Your task to perform on an android device: toggle location history Image 0: 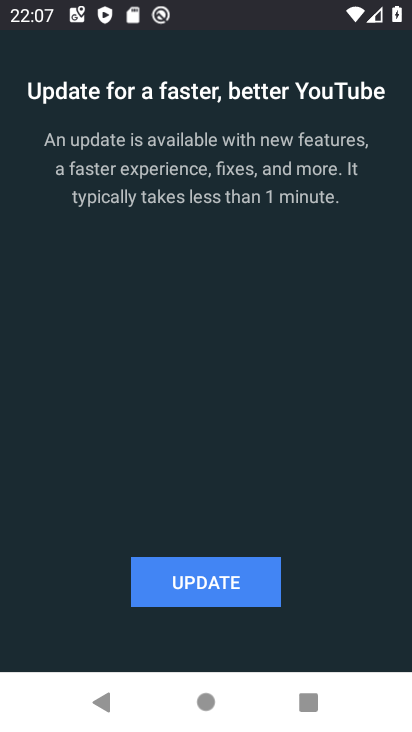
Step 0: press home button
Your task to perform on an android device: toggle location history Image 1: 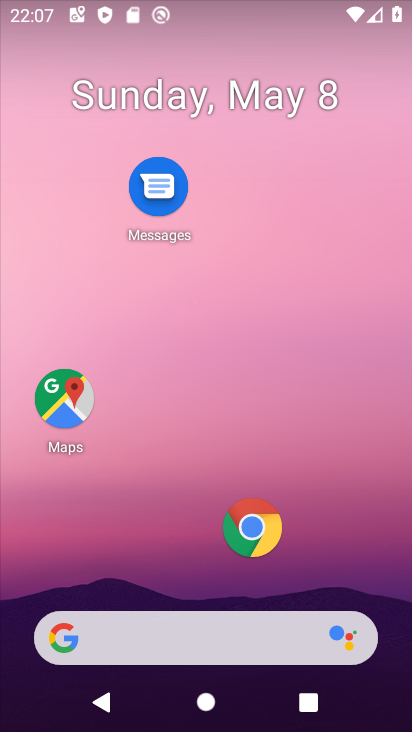
Step 1: drag from (167, 537) to (224, 4)
Your task to perform on an android device: toggle location history Image 2: 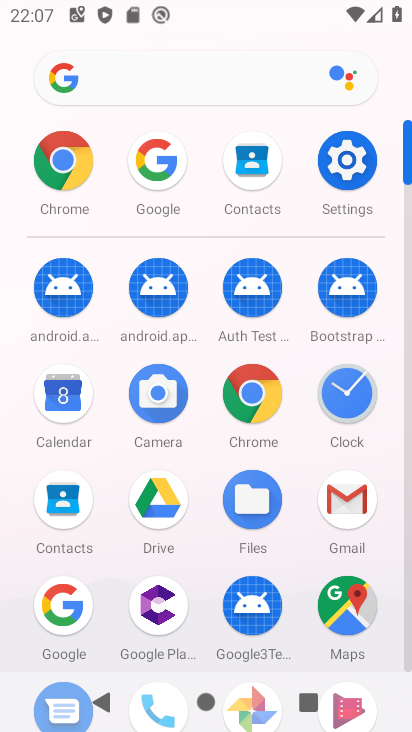
Step 2: click (349, 155)
Your task to perform on an android device: toggle location history Image 3: 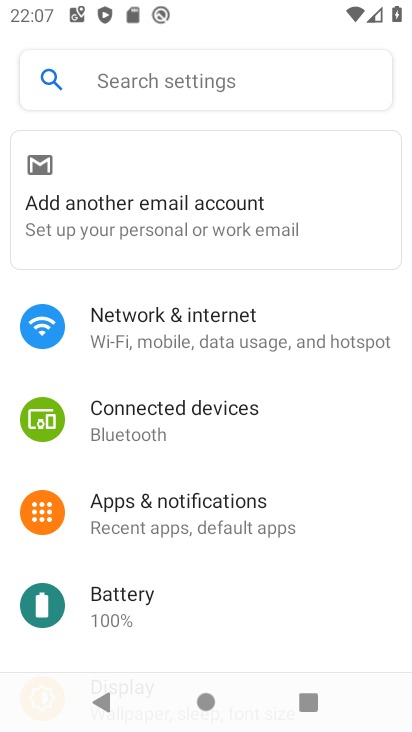
Step 3: drag from (255, 583) to (320, 49)
Your task to perform on an android device: toggle location history Image 4: 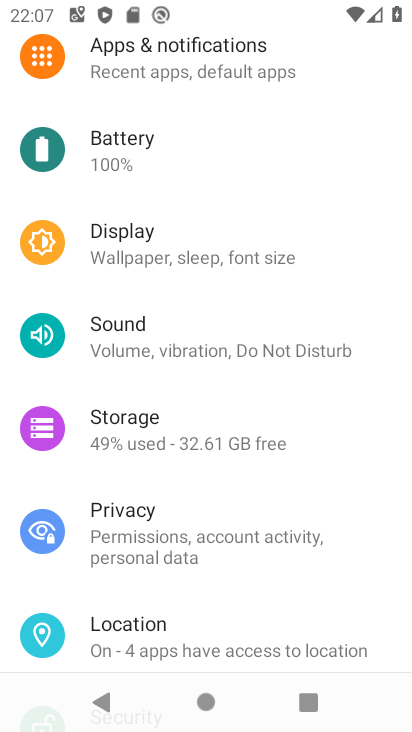
Step 4: click (131, 634)
Your task to perform on an android device: toggle location history Image 5: 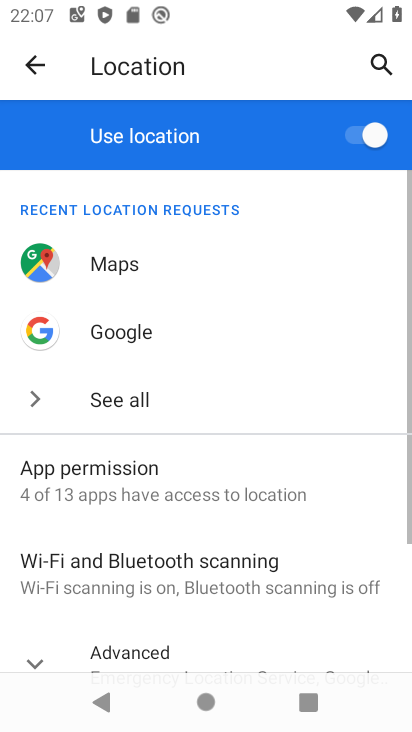
Step 5: drag from (298, 101) to (250, 30)
Your task to perform on an android device: toggle location history Image 6: 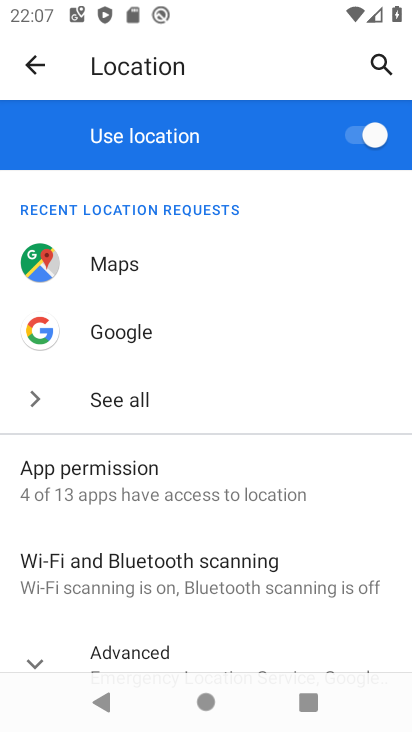
Step 6: drag from (180, 587) to (205, 256)
Your task to perform on an android device: toggle location history Image 7: 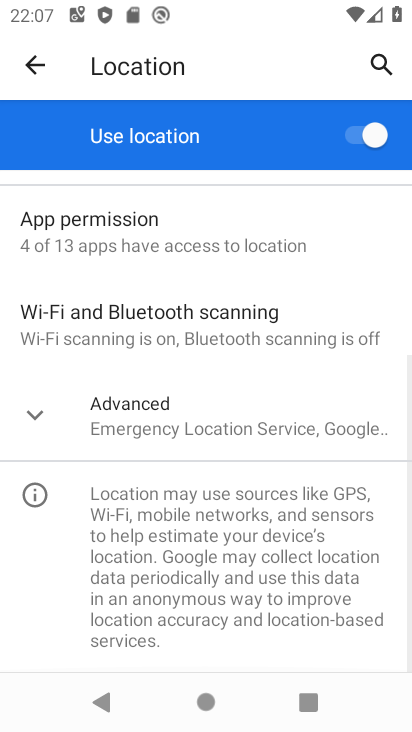
Step 7: click (108, 420)
Your task to perform on an android device: toggle location history Image 8: 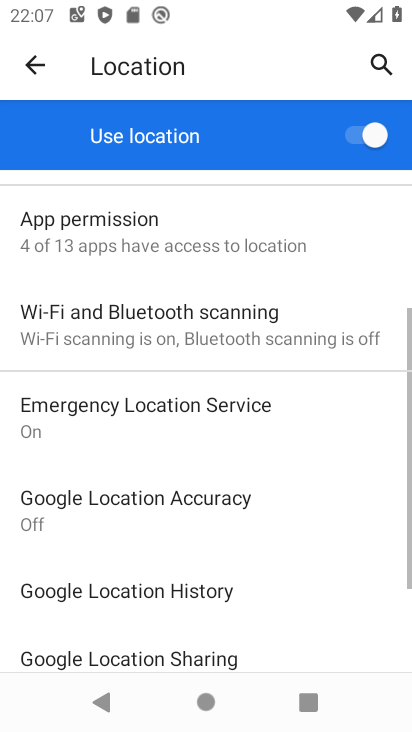
Step 8: drag from (190, 574) to (209, 382)
Your task to perform on an android device: toggle location history Image 9: 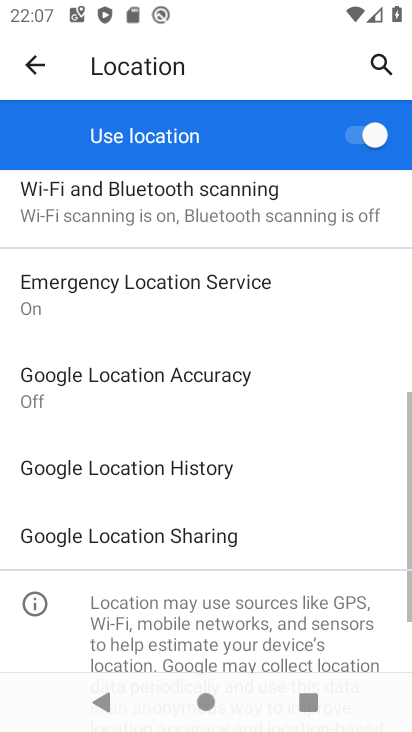
Step 9: click (118, 460)
Your task to perform on an android device: toggle location history Image 10: 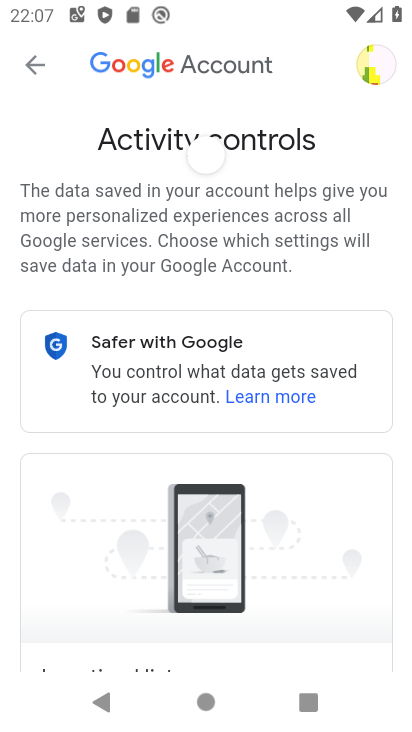
Step 10: drag from (266, 490) to (319, 17)
Your task to perform on an android device: toggle location history Image 11: 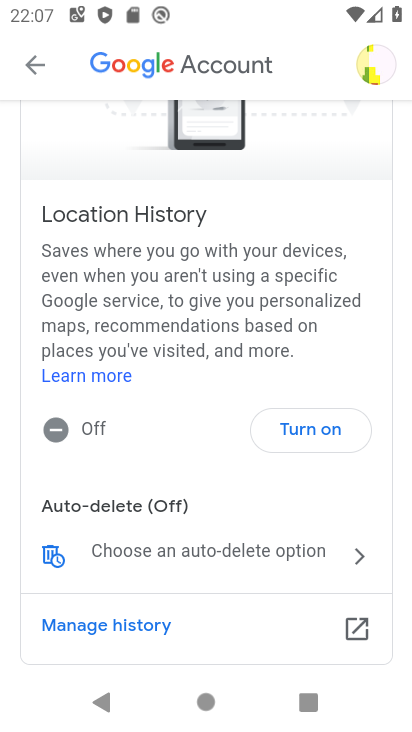
Step 11: click (293, 435)
Your task to perform on an android device: toggle location history Image 12: 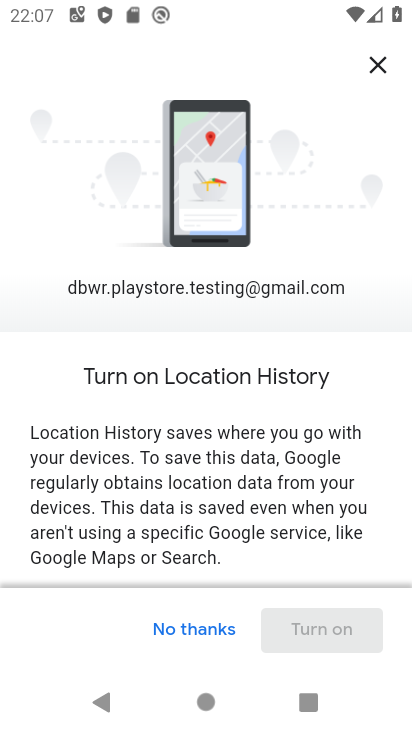
Step 12: drag from (269, 471) to (253, 3)
Your task to perform on an android device: toggle location history Image 13: 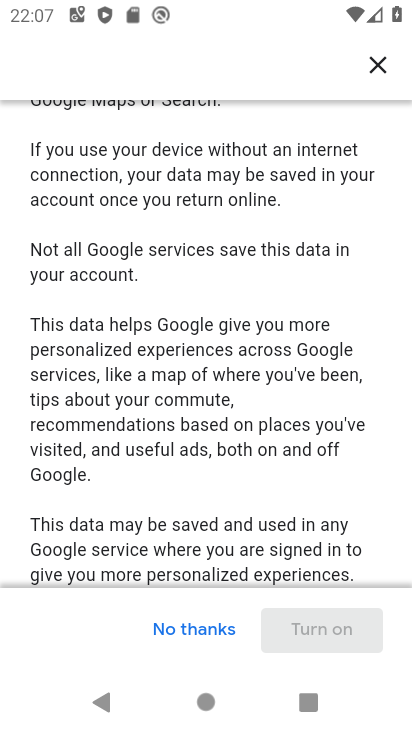
Step 13: drag from (301, 568) to (320, 63)
Your task to perform on an android device: toggle location history Image 14: 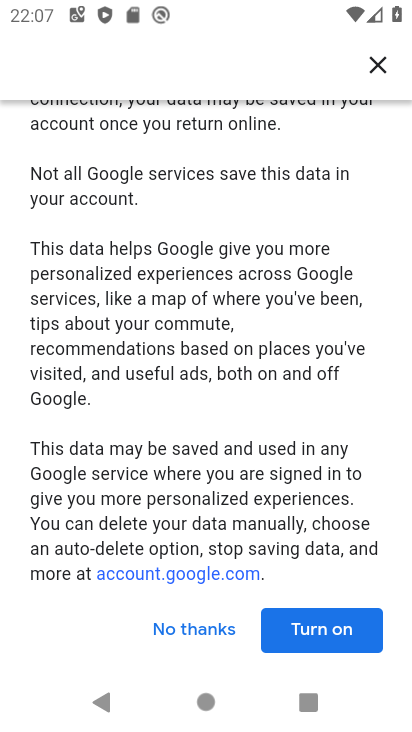
Step 14: click (307, 647)
Your task to perform on an android device: toggle location history Image 15: 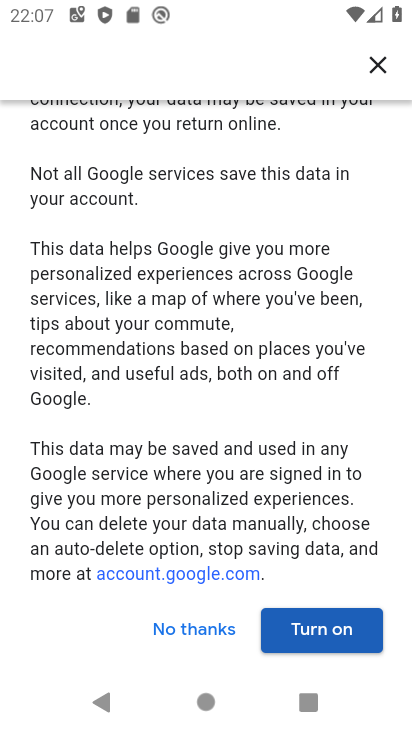
Step 15: click (315, 632)
Your task to perform on an android device: toggle location history Image 16: 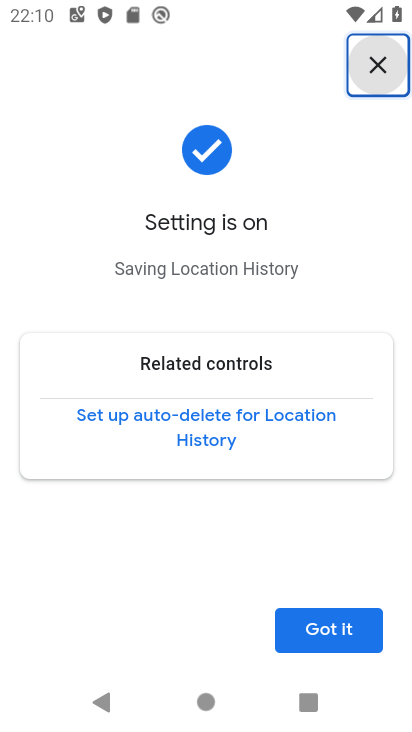
Step 16: task complete